Your task to perform on an android device: turn on wifi Image 0: 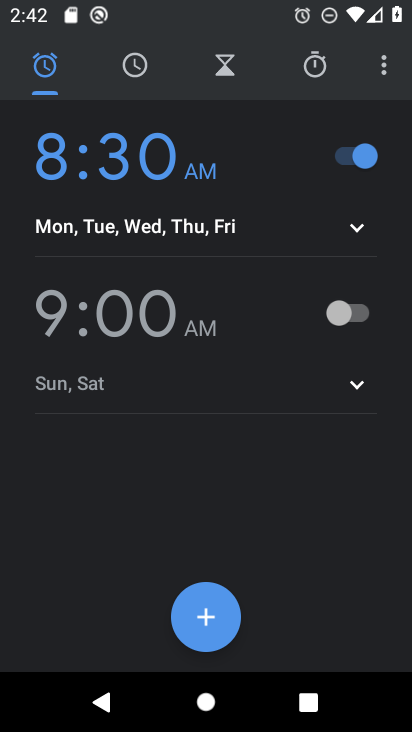
Step 0: drag from (256, 488) to (314, 215)
Your task to perform on an android device: turn on wifi Image 1: 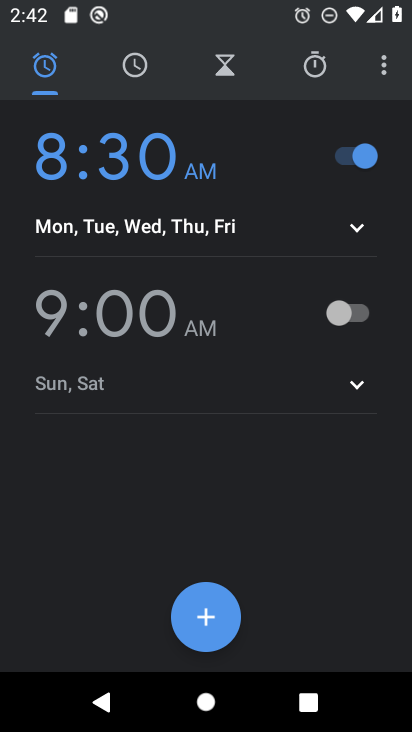
Step 1: press home button
Your task to perform on an android device: turn on wifi Image 2: 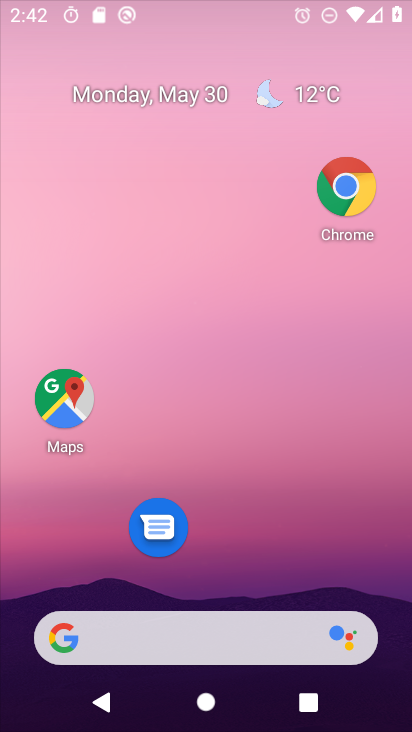
Step 2: drag from (155, 558) to (203, 116)
Your task to perform on an android device: turn on wifi Image 3: 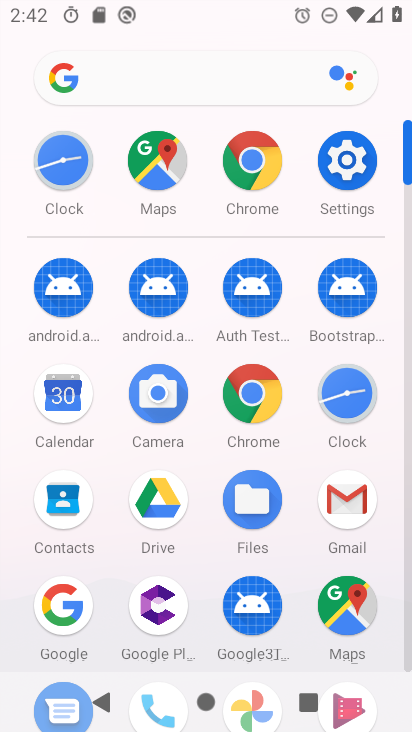
Step 3: click (340, 156)
Your task to perform on an android device: turn on wifi Image 4: 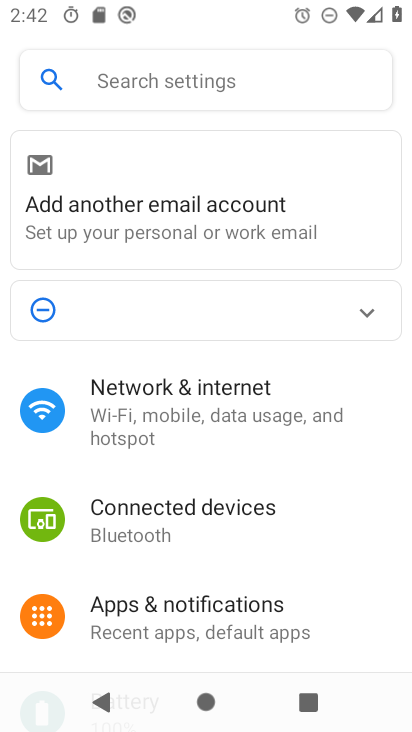
Step 4: click (203, 401)
Your task to perform on an android device: turn on wifi Image 5: 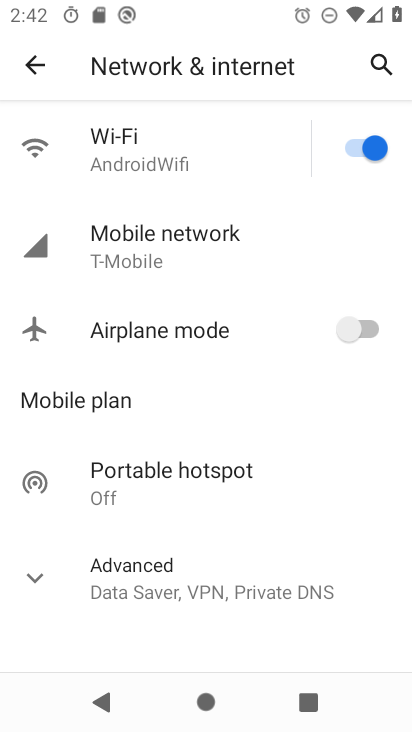
Step 5: click (199, 151)
Your task to perform on an android device: turn on wifi Image 6: 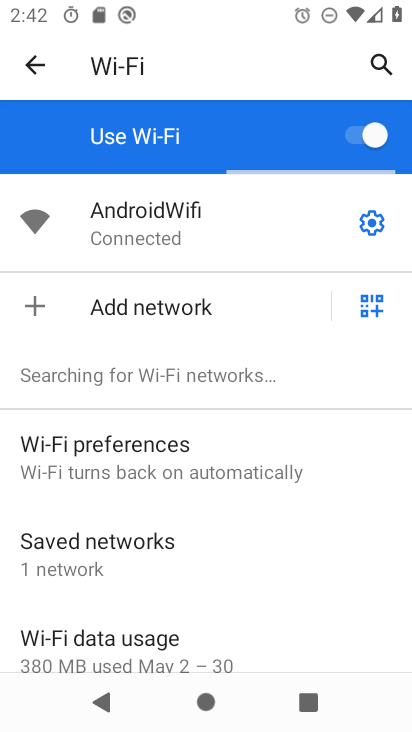
Step 6: task complete